Your task to perform on an android device: Show the shopping cart on newegg. Add "usb-a to usb-b" to the cart on newegg Image 0: 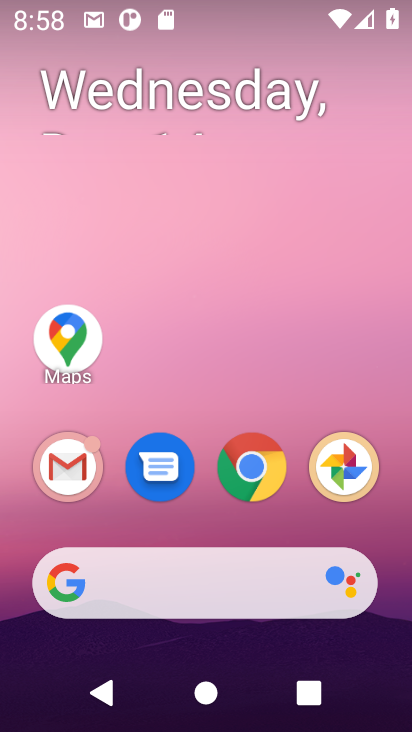
Step 0: click (182, 603)
Your task to perform on an android device: Show the shopping cart on newegg. Add "usb-a to usb-b" to the cart on newegg Image 1: 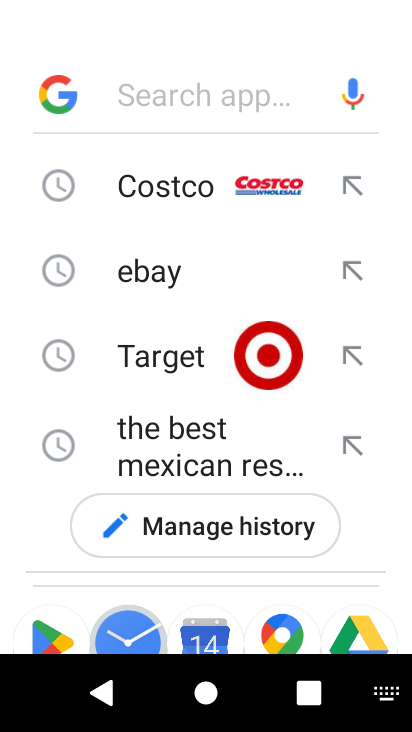
Step 1: click (263, 102)
Your task to perform on an android device: Show the shopping cart on newegg. Add "usb-a to usb-b" to the cart on newegg Image 2: 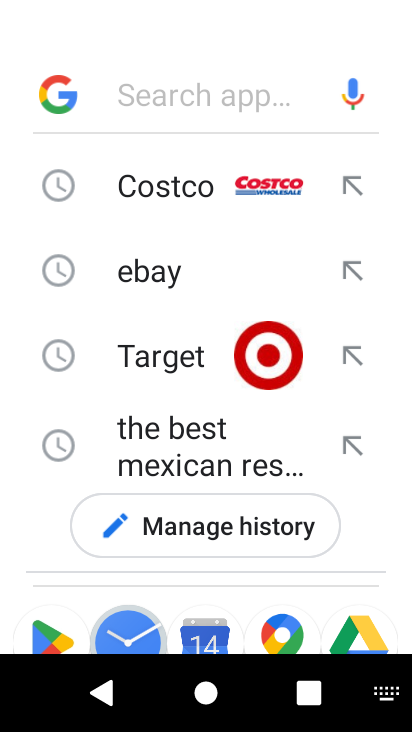
Step 2: type "newegg"
Your task to perform on an android device: Show the shopping cart on newegg. Add "usb-a to usb-b" to the cart on newegg Image 3: 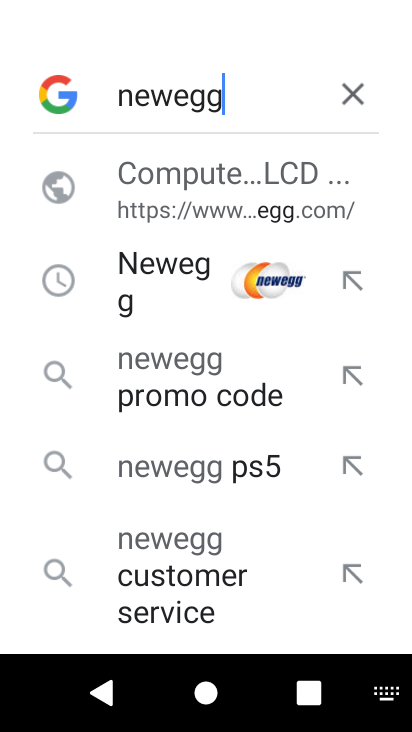
Step 3: click (167, 207)
Your task to perform on an android device: Show the shopping cart on newegg. Add "usb-a to usb-b" to the cart on newegg Image 4: 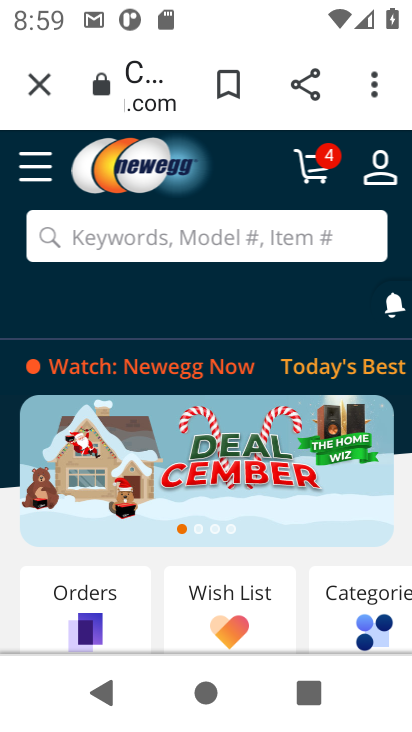
Step 4: click (105, 224)
Your task to perform on an android device: Show the shopping cart on newegg. Add "usb-a to usb-b" to the cart on newegg Image 5: 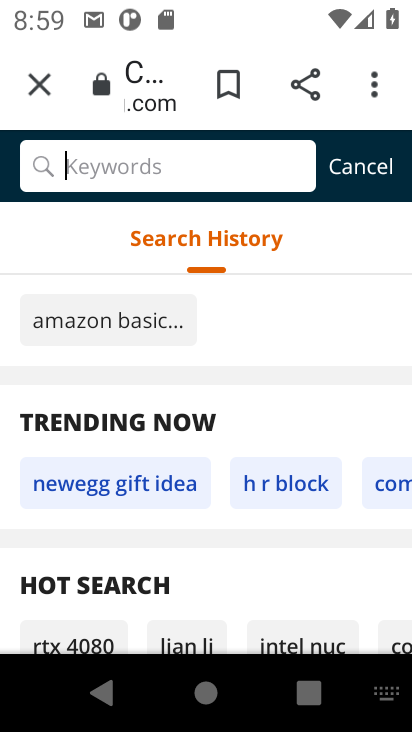
Step 5: type "usb-a to usb-b"
Your task to perform on an android device: Show the shopping cart on newegg. Add "usb-a to usb-b" to the cart on newegg Image 6: 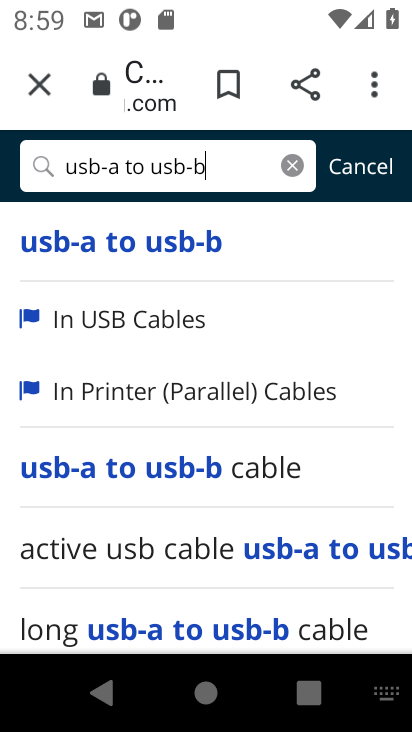
Step 6: click (152, 253)
Your task to perform on an android device: Show the shopping cart on newegg. Add "usb-a to usb-b" to the cart on newegg Image 7: 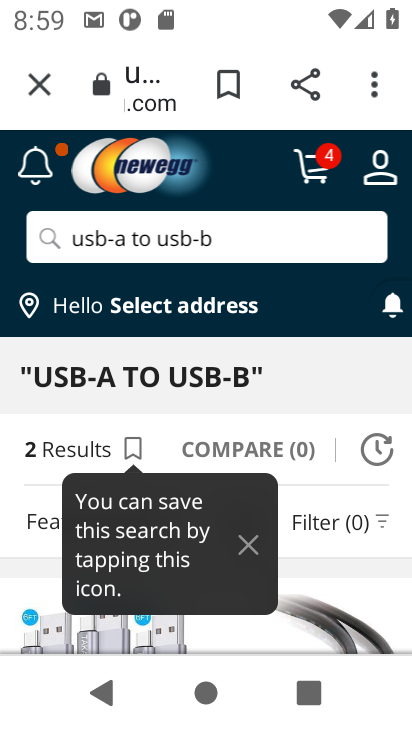
Step 7: click (258, 549)
Your task to perform on an android device: Show the shopping cart on newegg. Add "usb-a to usb-b" to the cart on newegg Image 8: 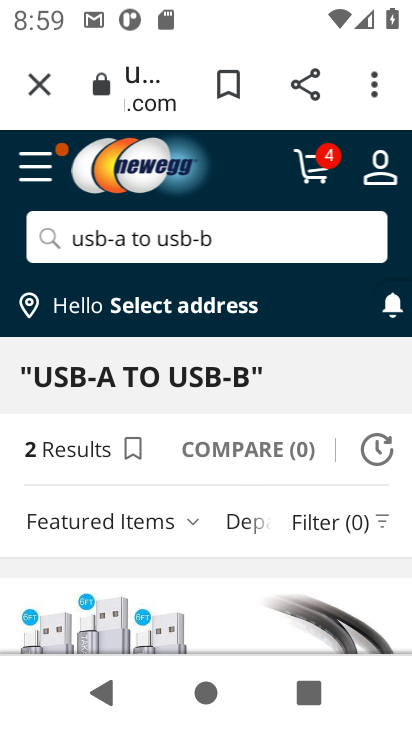
Step 8: drag from (276, 632) to (274, 284)
Your task to perform on an android device: Show the shopping cart on newegg. Add "usb-a to usb-b" to the cart on newegg Image 9: 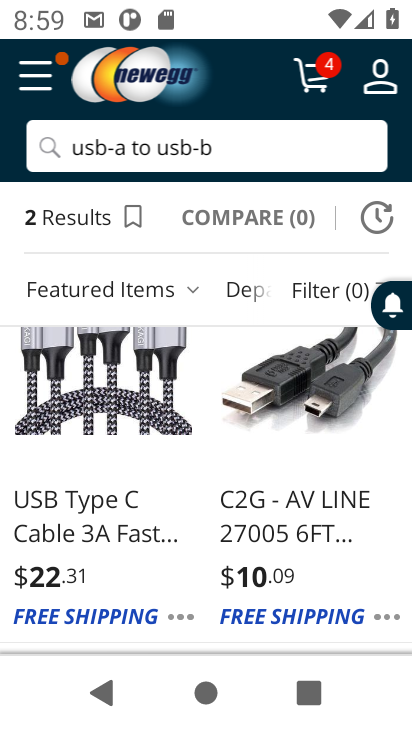
Step 9: click (158, 524)
Your task to perform on an android device: Show the shopping cart on newegg. Add "usb-a to usb-b" to the cart on newegg Image 10: 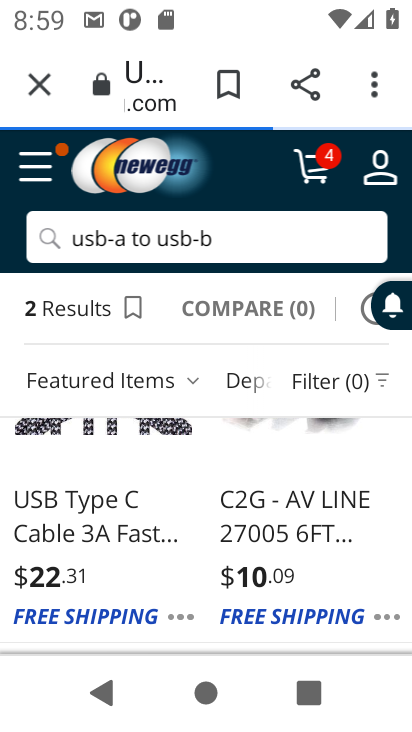
Step 10: task complete